Your task to perform on an android device: Show me productivity apps on the Play Store Image 0: 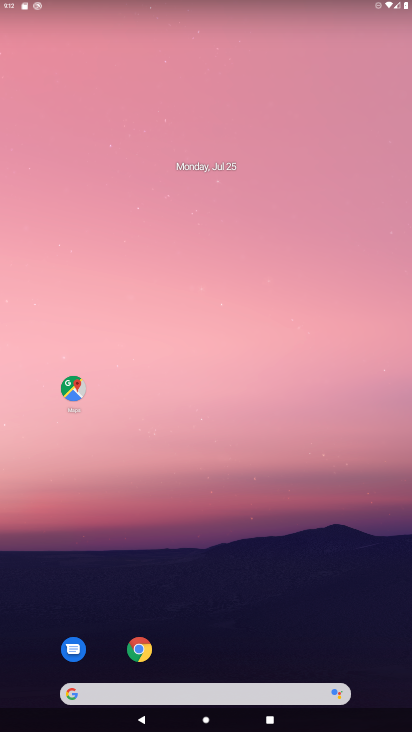
Step 0: drag from (204, 659) to (178, 166)
Your task to perform on an android device: Show me productivity apps on the Play Store Image 1: 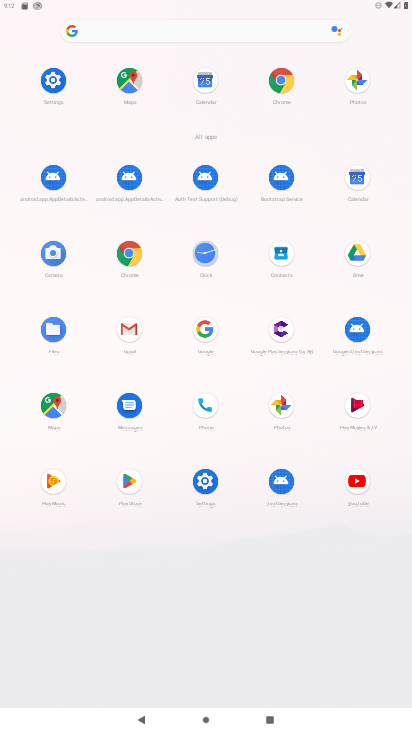
Step 1: click (131, 481)
Your task to perform on an android device: Show me productivity apps on the Play Store Image 2: 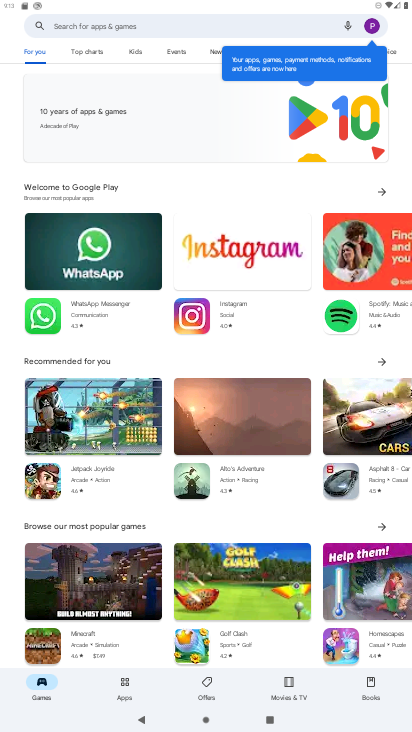
Step 2: click (122, 686)
Your task to perform on an android device: Show me productivity apps on the Play Store Image 3: 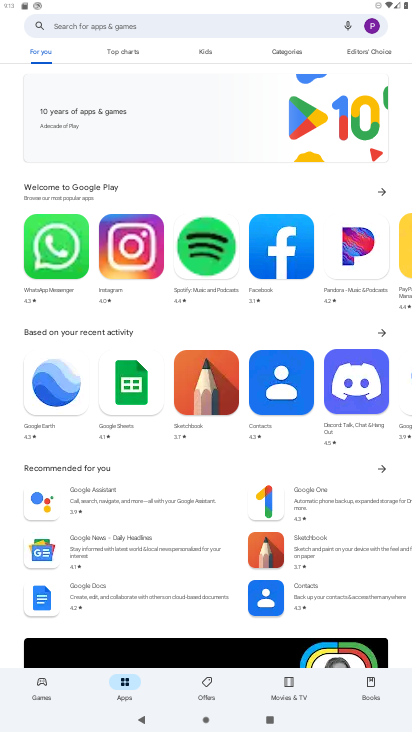
Step 3: click (288, 53)
Your task to perform on an android device: Show me productivity apps on the Play Store Image 4: 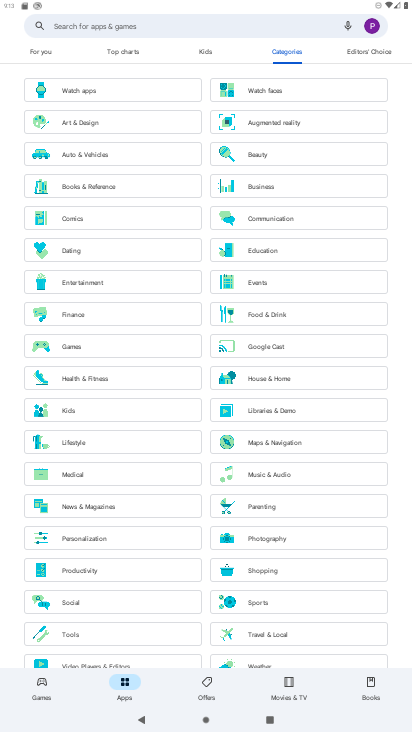
Step 4: drag from (42, 387) to (106, 541)
Your task to perform on an android device: Show me productivity apps on the Play Store Image 5: 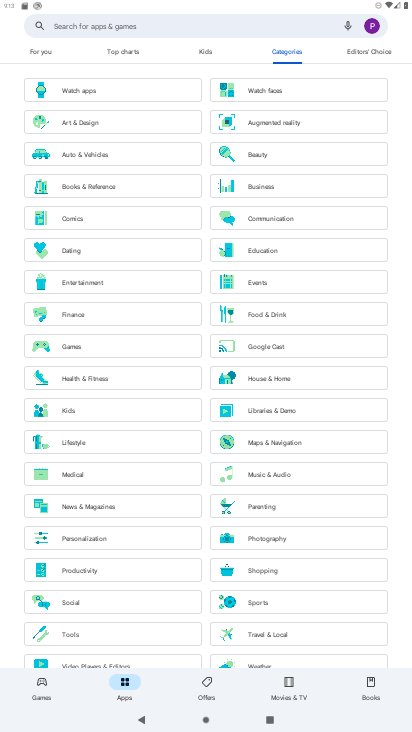
Step 5: click (55, 562)
Your task to perform on an android device: Show me productivity apps on the Play Store Image 6: 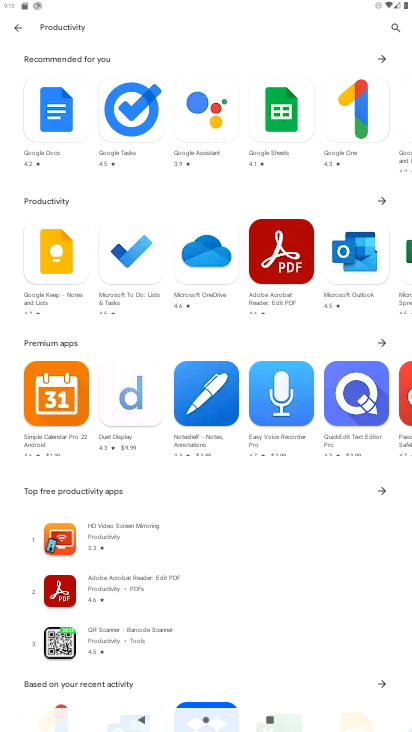
Step 6: task complete